Your task to perform on an android device: Open Reddit.com Image 0: 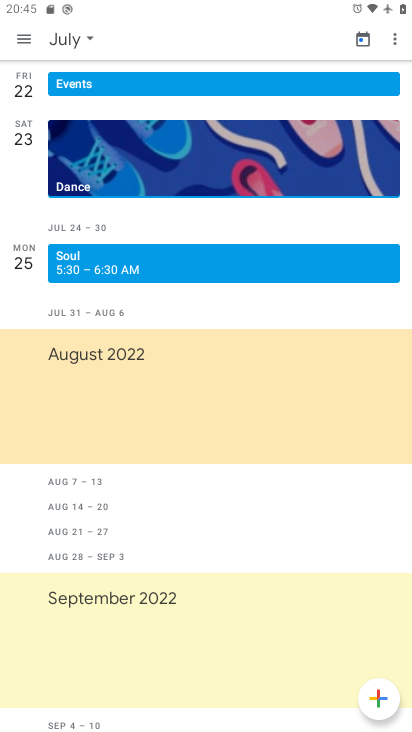
Step 0: press home button
Your task to perform on an android device: Open Reddit.com Image 1: 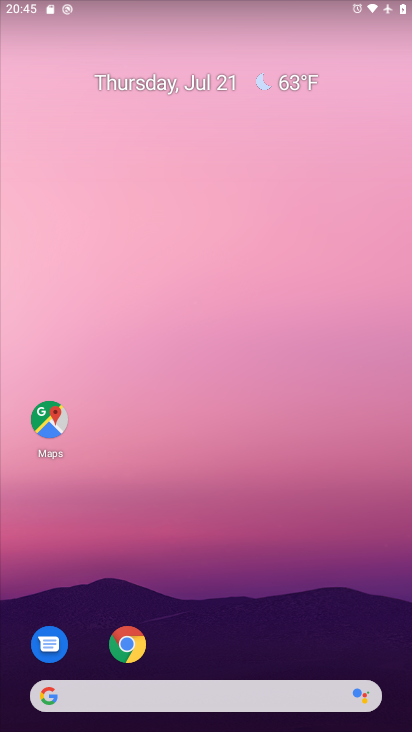
Step 1: click (119, 651)
Your task to perform on an android device: Open Reddit.com Image 2: 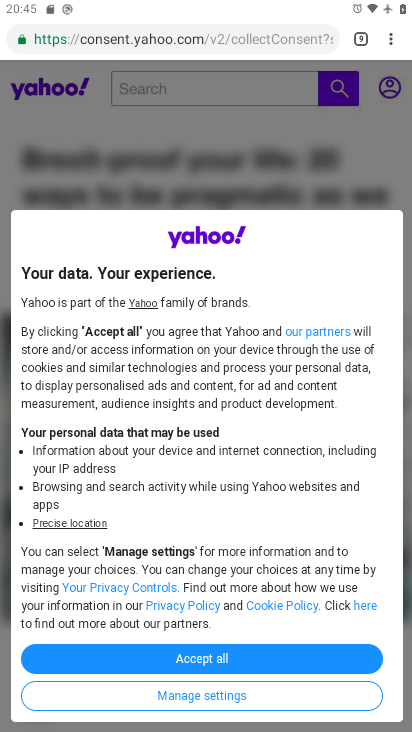
Step 2: click (397, 43)
Your task to perform on an android device: Open Reddit.com Image 3: 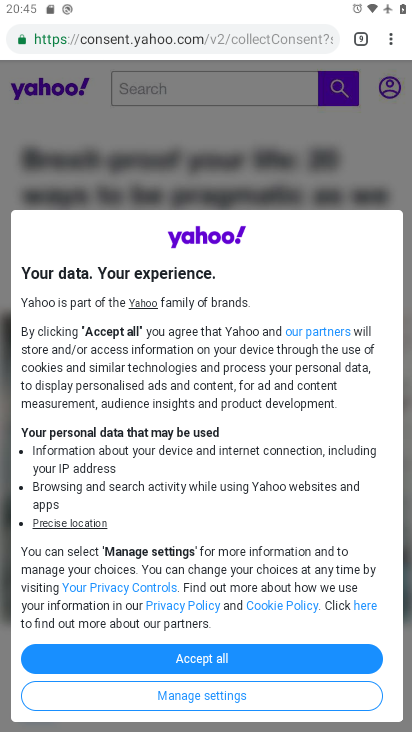
Step 3: click (397, 43)
Your task to perform on an android device: Open Reddit.com Image 4: 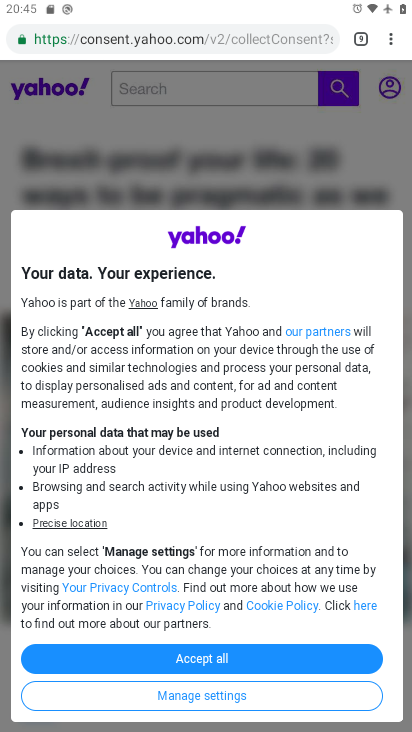
Step 4: click (397, 43)
Your task to perform on an android device: Open Reddit.com Image 5: 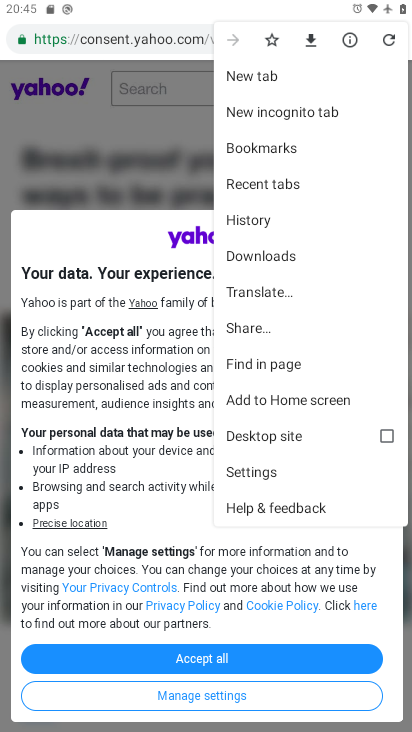
Step 5: click (262, 67)
Your task to perform on an android device: Open Reddit.com Image 6: 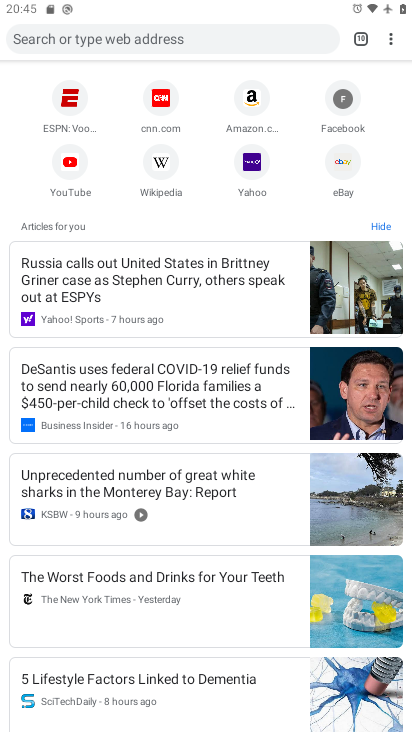
Step 6: click (180, 32)
Your task to perform on an android device: Open Reddit.com Image 7: 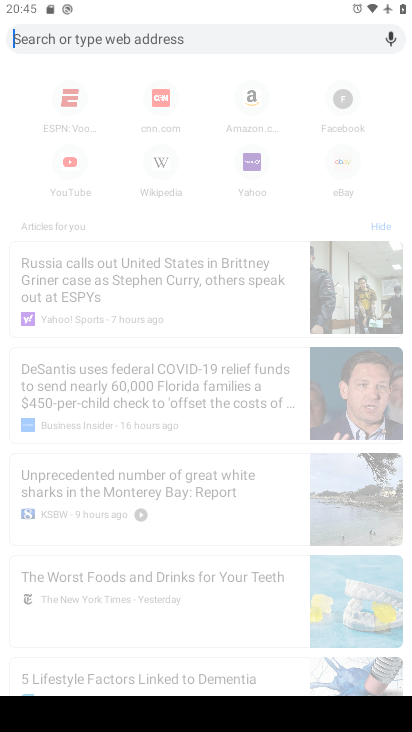
Step 7: type " Reddit.com "
Your task to perform on an android device: Open Reddit.com Image 8: 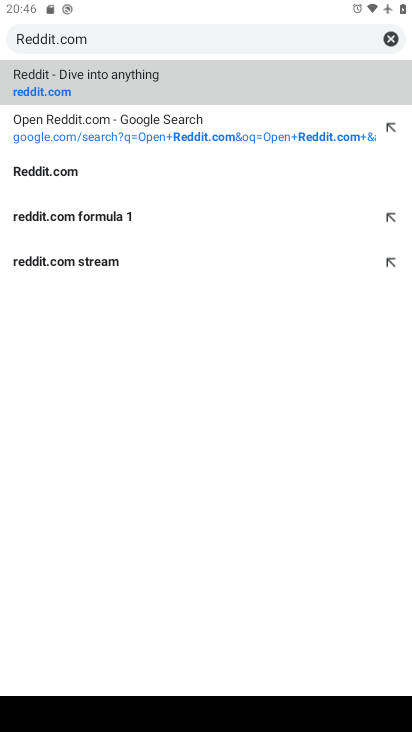
Step 8: click (156, 85)
Your task to perform on an android device: Open Reddit.com Image 9: 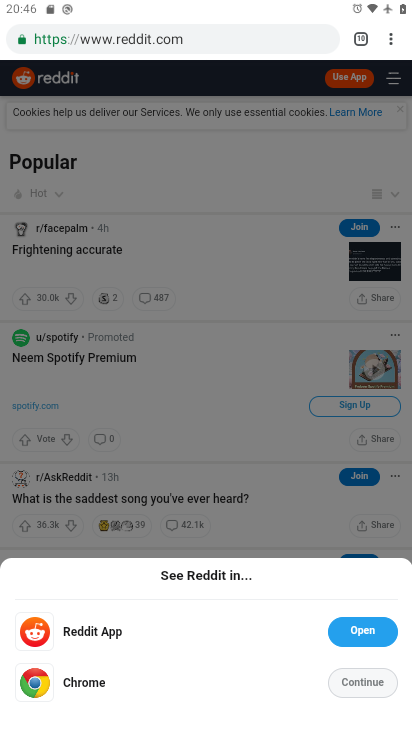
Step 9: click (366, 631)
Your task to perform on an android device: Open Reddit.com Image 10: 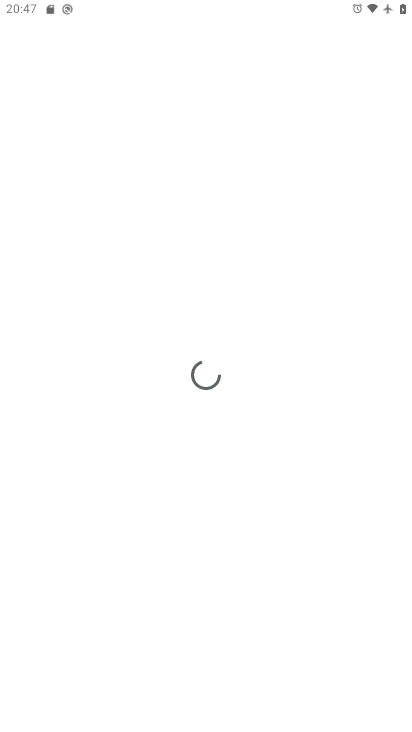
Step 10: task complete